Your task to perform on an android device: Open accessibility settings Image 0: 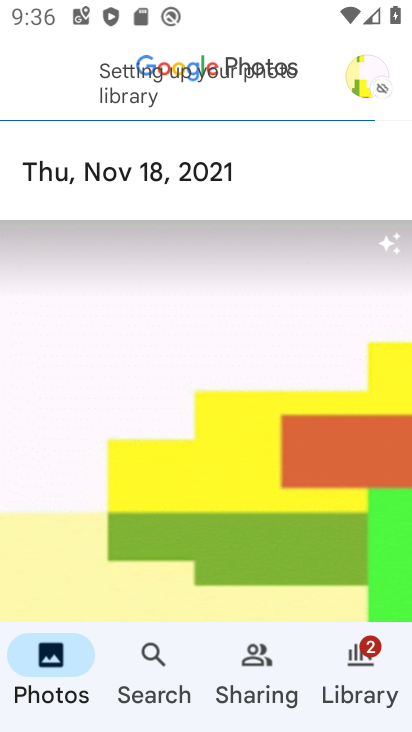
Step 0: press home button
Your task to perform on an android device: Open accessibility settings Image 1: 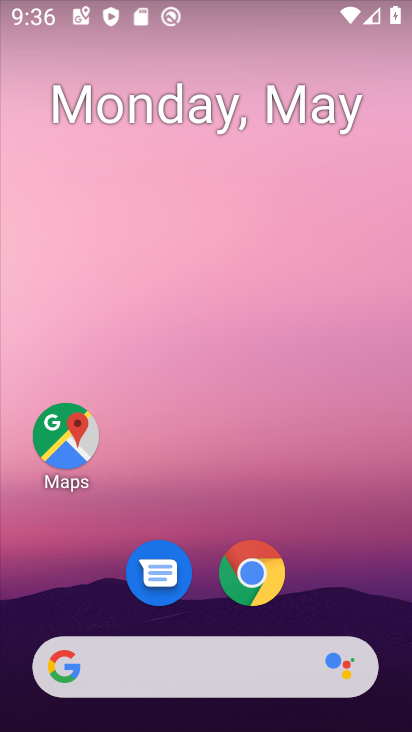
Step 1: drag from (349, 573) to (339, 75)
Your task to perform on an android device: Open accessibility settings Image 2: 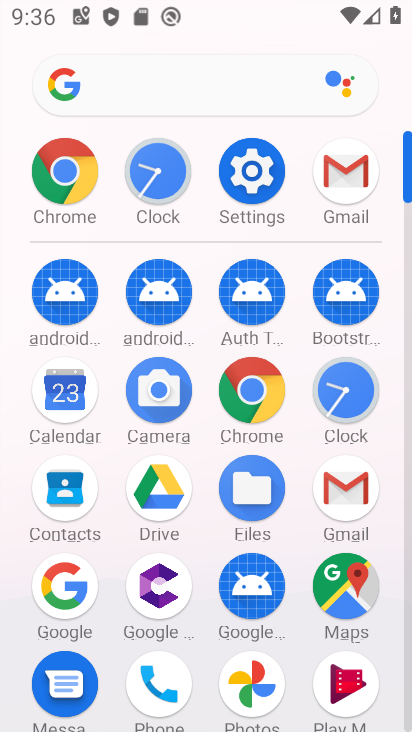
Step 2: click (241, 209)
Your task to perform on an android device: Open accessibility settings Image 3: 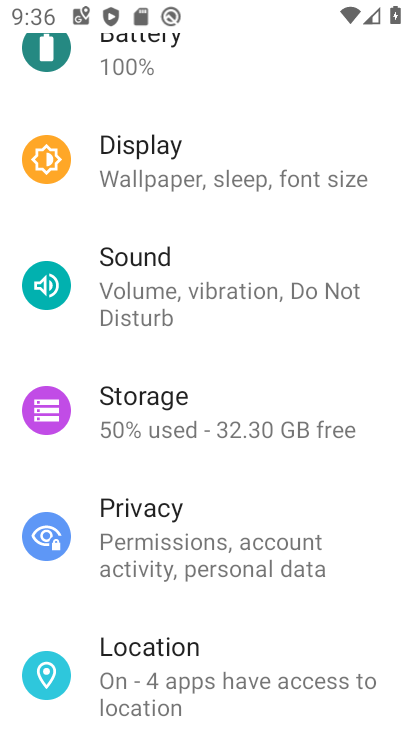
Step 3: drag from (202, 564) to (207, 326)
Your task to perform on an android device: Open accessibility settings Image 4: 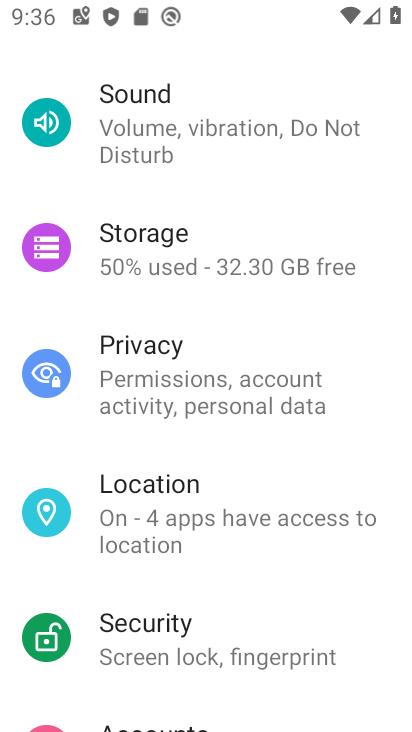
Step 4: drag from (238, 591) to (249, 178)
Your task to perform on an android device: Open accessibility settings Image 5: 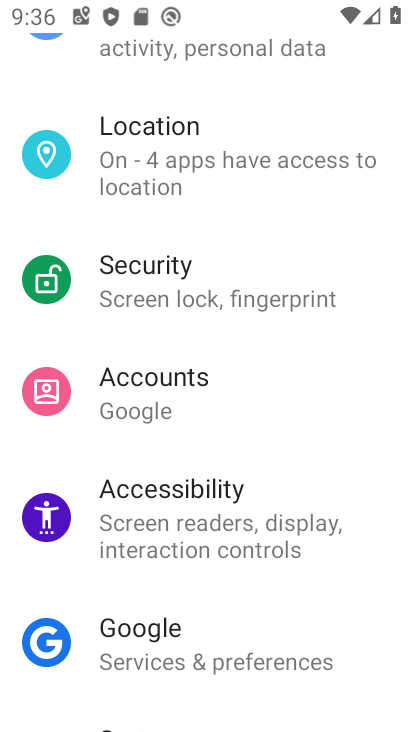
Step 5: drag from (229, 535) to (234, 470)
Your task to perform on an android device: Open accessibility settings Image 6: 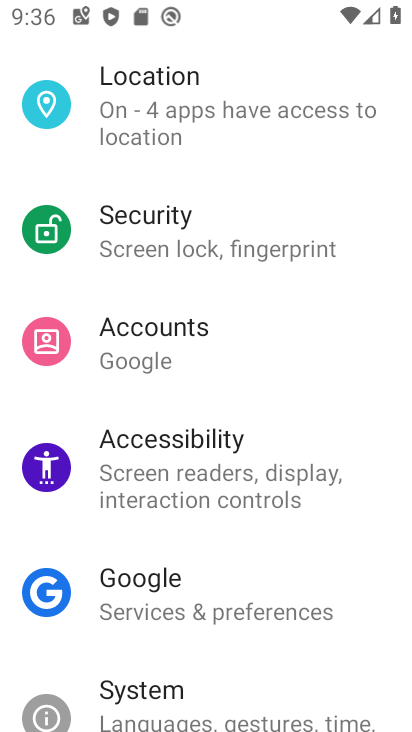
Step 6: click (185, 464)
Your task to perform on an android device: Open accessibility settings Image 7: 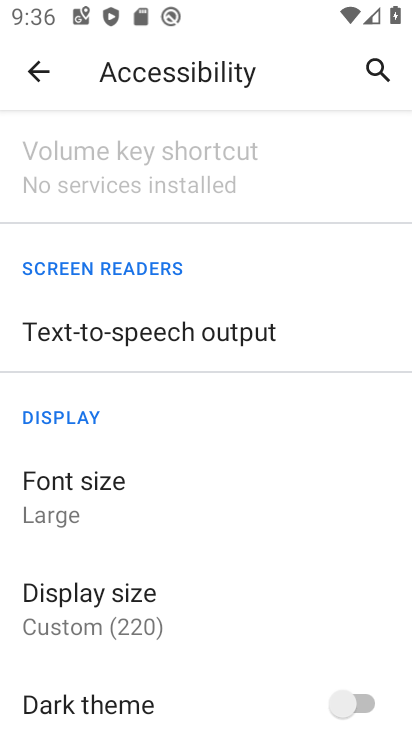
Step 7: task complete